Your task to perform on an android device: Open calendar and show me the fourth week of next month Image 0: 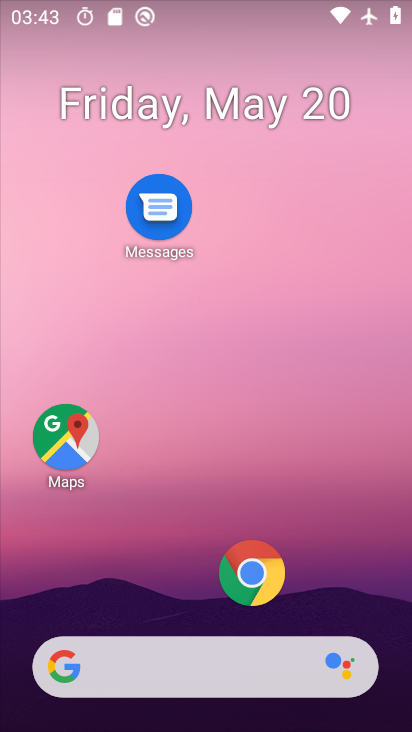
Step 0: drag from (186, 607) to (205, 215)
Your task to perform on an android device: Open calendar and show me the fourth week of next month Image 1: 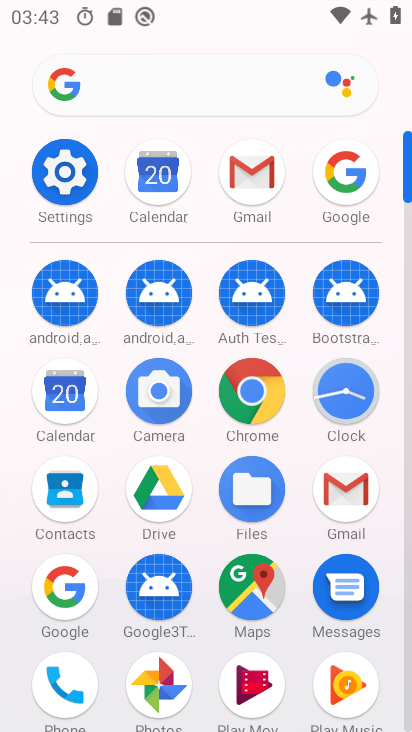
Step 1: click (61, 410)
Your task to perform on an android device: Open calendar and show me the fourth week of next month Image 2: 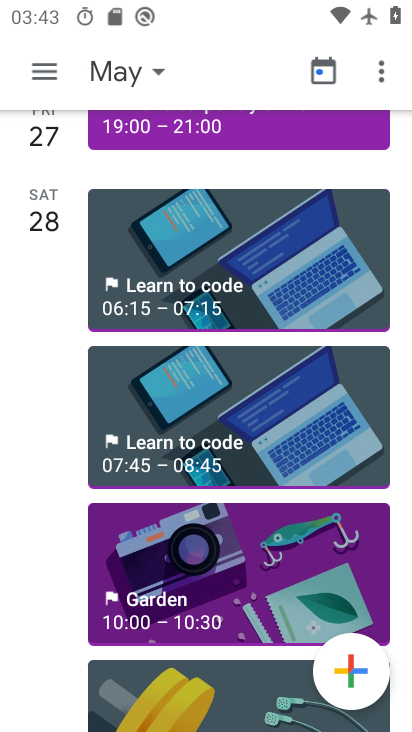
Step 2: click (159, 71)
Your task to perform on an android device: Open calendar and show me the fourth week of next month Image 3: 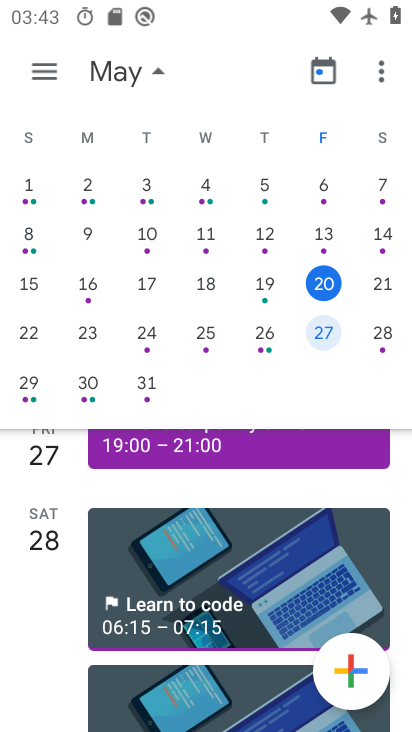
Step 3: drag from (355, 251) to (37, 245)
Your task to perform on an android device: Open calendar and show me the fourth week of next month Image 4: 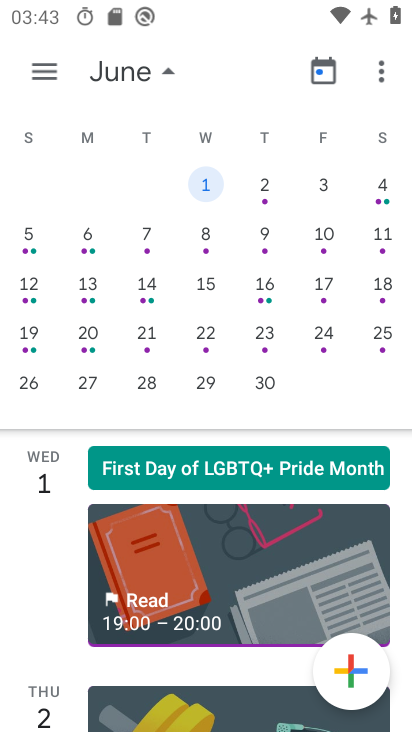
Step 4: click (28, 331)
Your task to perform on an android device: Open calendar and show me the fourth week of next month Image 5: 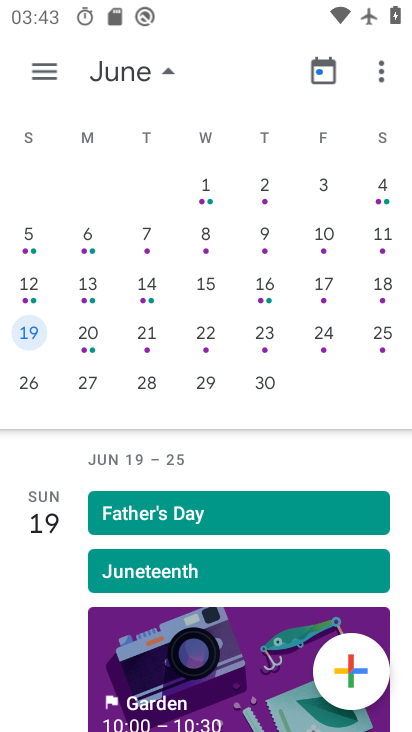
Step 5: task complete